Your task to perform on an android device: Go to Wikipedia Image 0: 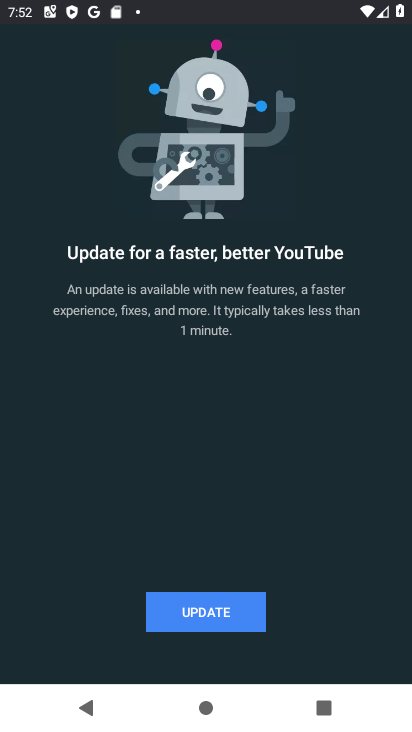
Step 0: press home button
Your task to perform on an android device: Go to Wikipedia Image 1: 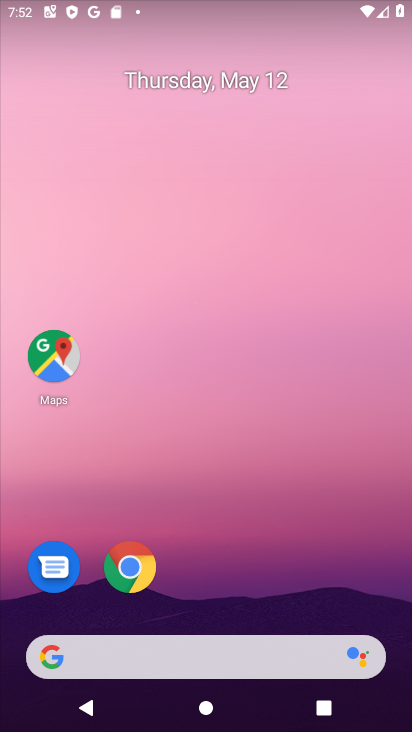
Step 1: drag from (173, 570) to (168, 35)
Your task to perform on an android device: Go to Wikipedia Image 2: 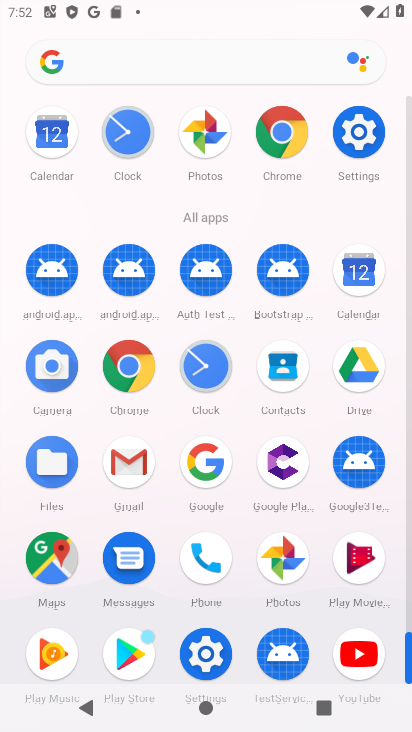
Step 2: click (378, 142)
Your task to perform on an android device: Go to Wikipedia Image 3: 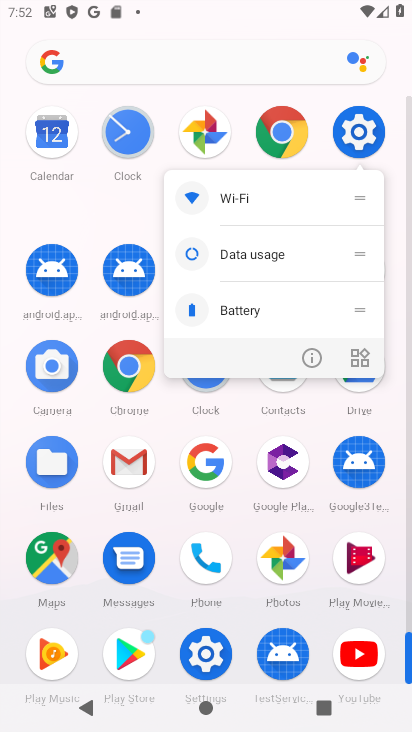
Step 3: click (379, 141)
Your task to perform on an android device: Go to Wikipedia Image 4: 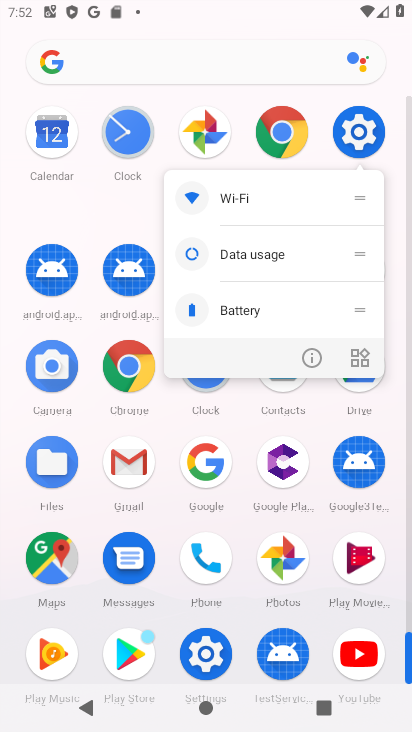
Step 4: click (379, 139)
Your task to perform on an android device: Go to Wikipedia Image 5: 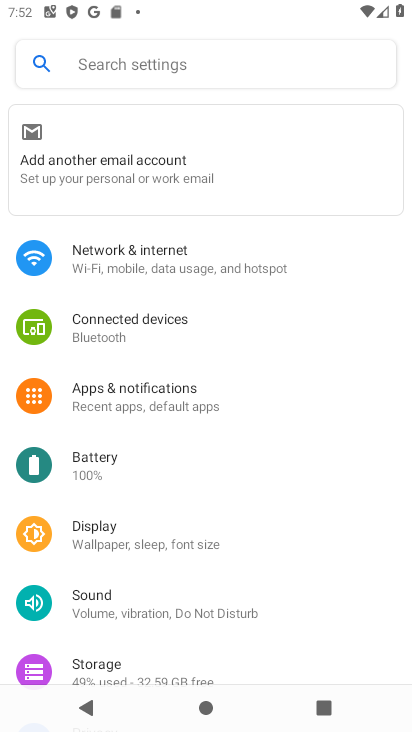
Step 5: click (139, 254)
Your task to perform on an android device: Go to Wikipedia Image 6: 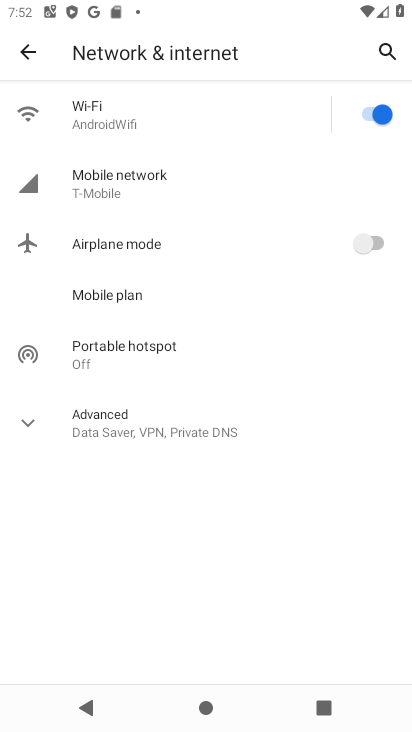
Step 6: click (174, 121)
Your task to perform on an android device: Go to Wikipedia Image 7: 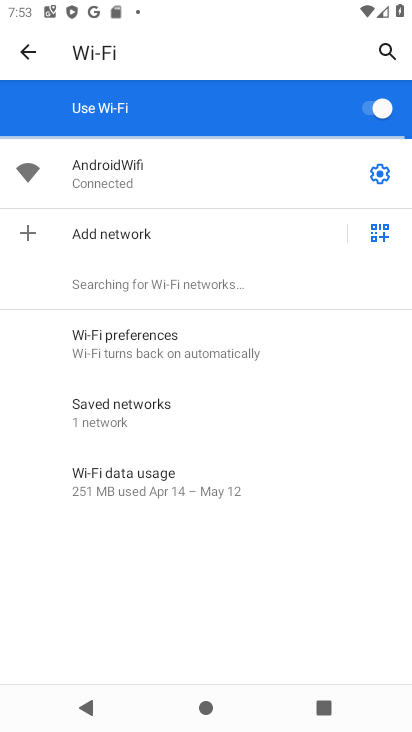
Step 7: task complete